Your task to perform on an android device: Search for Italian restaurants on Maps Image 0: 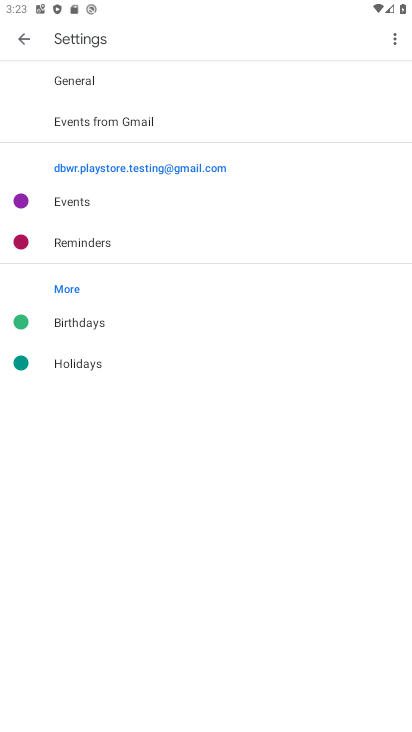
Step 0: press home button
Your task to perform on an android device: Search for Italian restaurants on Maps Image 1: 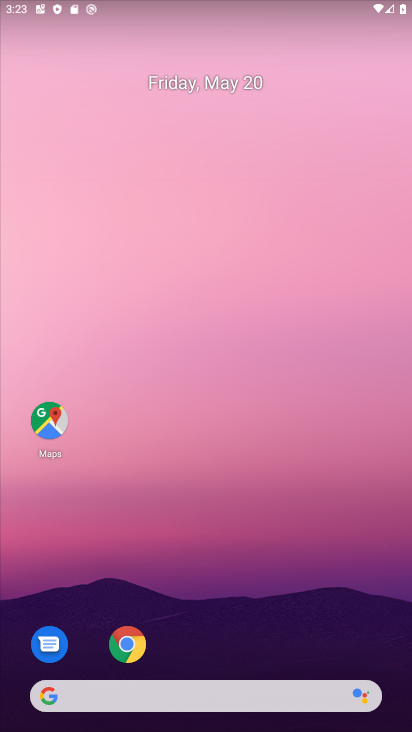
Step 1: click (19, 404)
Your task to perform on an android device: Search for Italian restaurants on Maps Image 2: 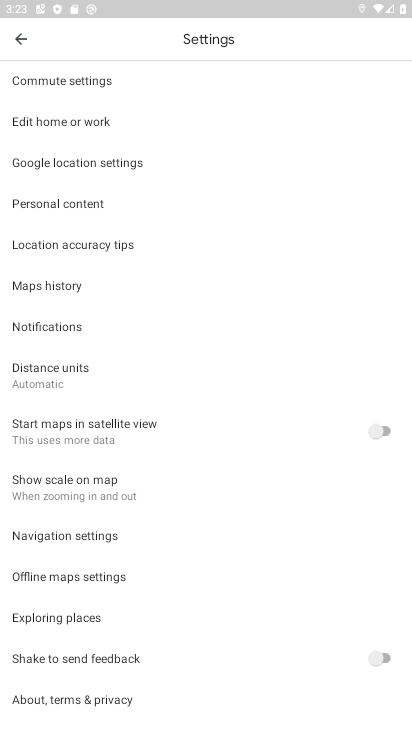
Step 2: click (17, 26)
Your task to perform on an android device: Search for Italian restaurants on Maps Image 3: 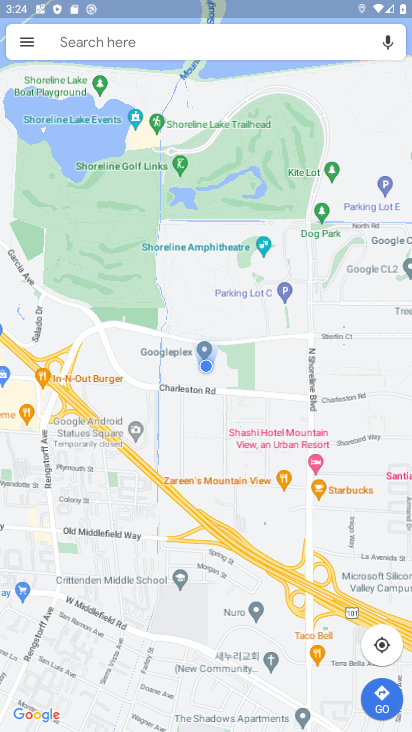
Step 3: click (110, 53)
Your task to perform on an android device: Search for Italian restaurants on Maps Image 4: 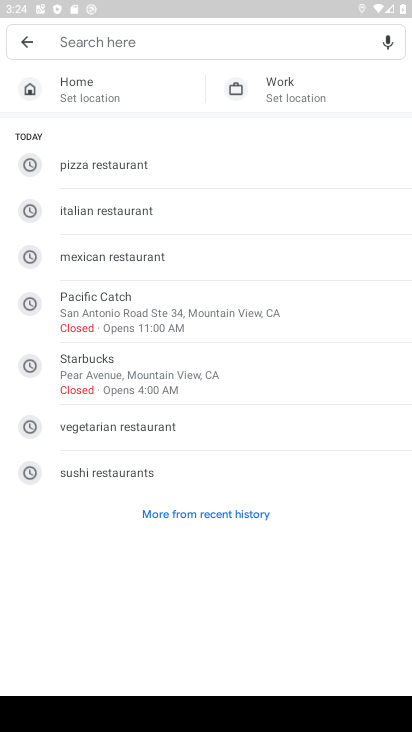
Step 4: click (127, 226)
Your task to perform on an android device: Search for Italian restaurants on Maps Image 5: 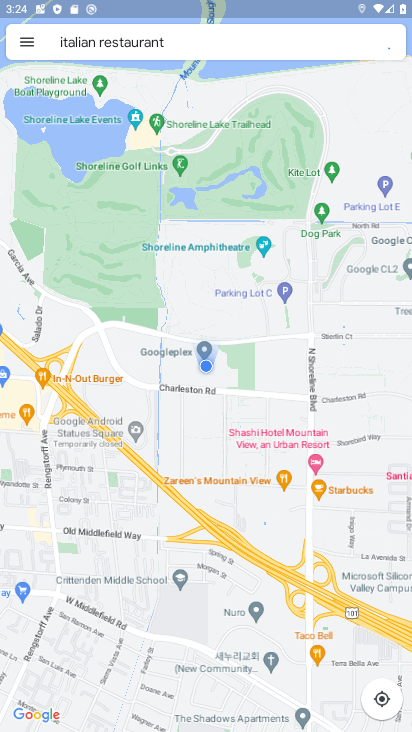
Step 5: task complete